Your task to perform on an android device: see tabs open on other devices in the chrome app Image 0: 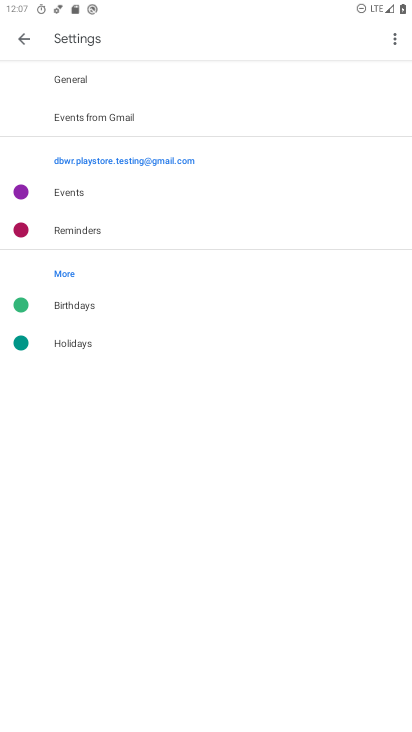
Step 0: press home button
Your task to perform on an android device: see tabs open on other devices in the chrome app Image 1: 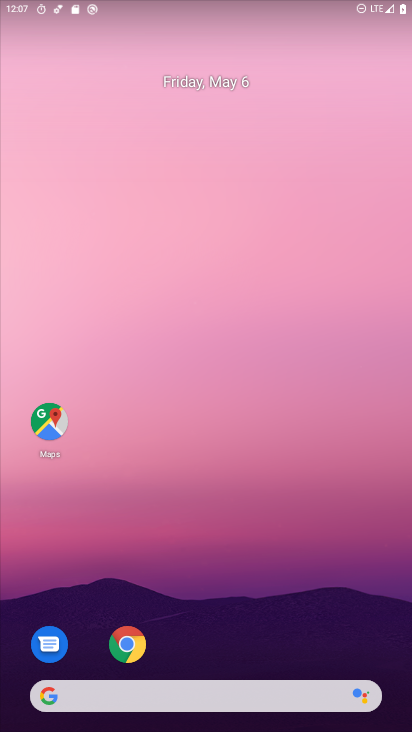
Step 1: drag from (380, 592) to (305, 113)
Your task to perform on an android device: see tabs open on other devices in the chrome app Image 2: 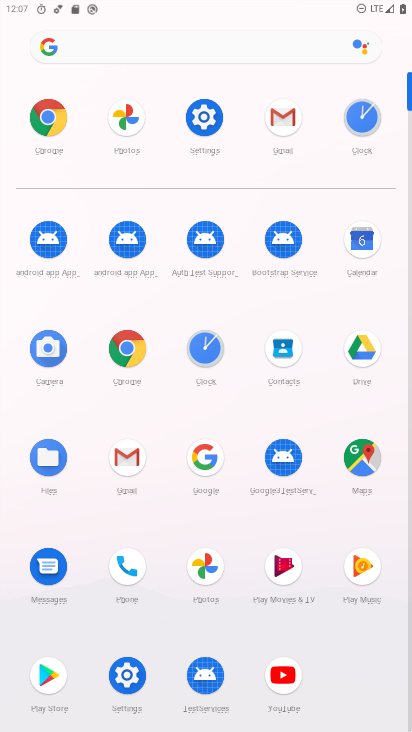
Step 2: click (132, 352)
Your task to perform on an android device: see tabs open on other devices in the chrome app Image 3: 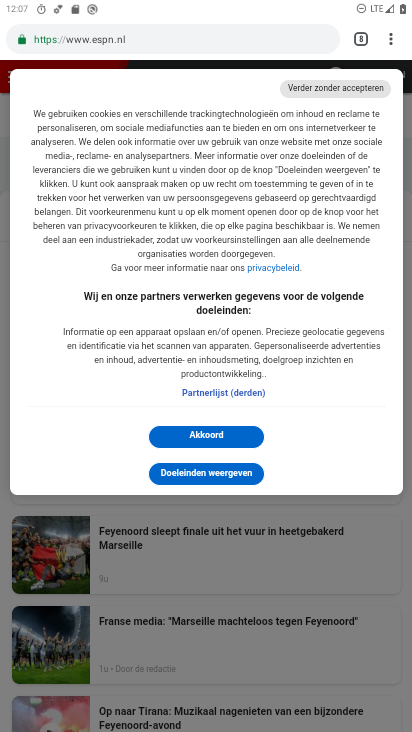
Step 3: click (359, 35)
Your task to perform on an android device: see tabs open on other devices in the chrome app Image 4: 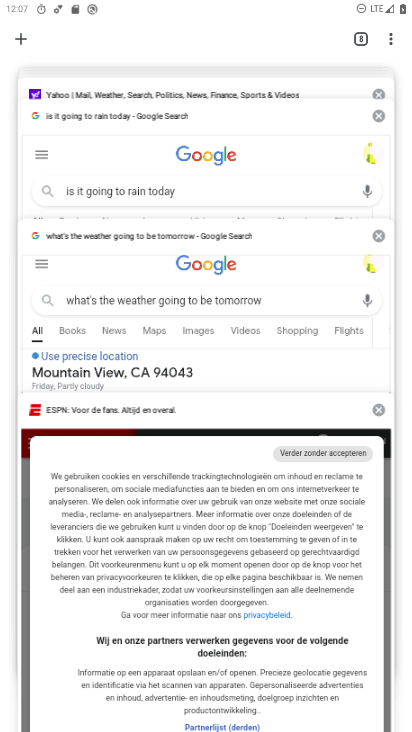
Step 4: task complete